Your task to perform on an android device: change alarm snooze length Image 0: 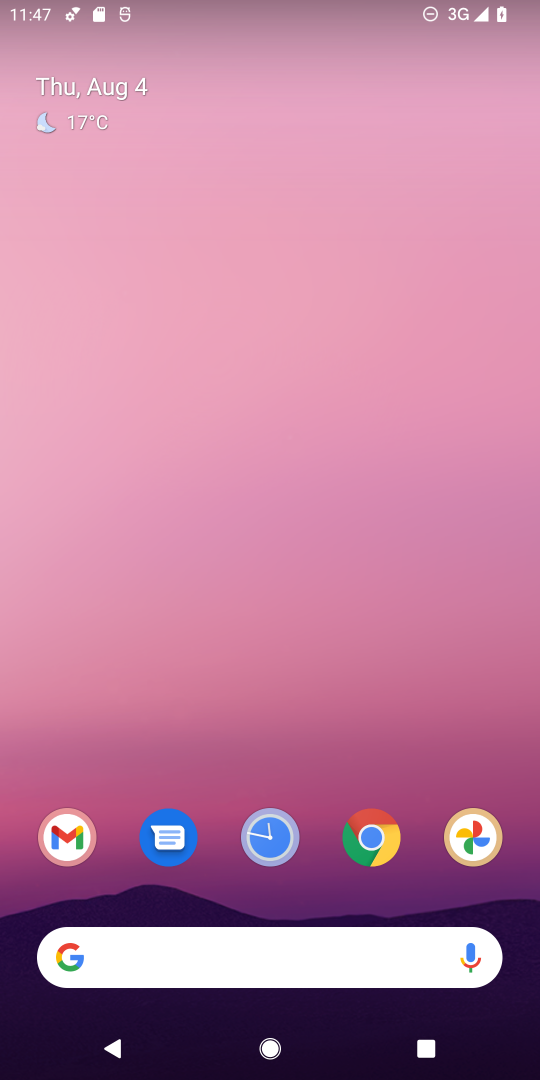
Step 0: drag from (394, 839) to (118, 41)
Your task to perform on an android device: change alarm snooze length Image 1: 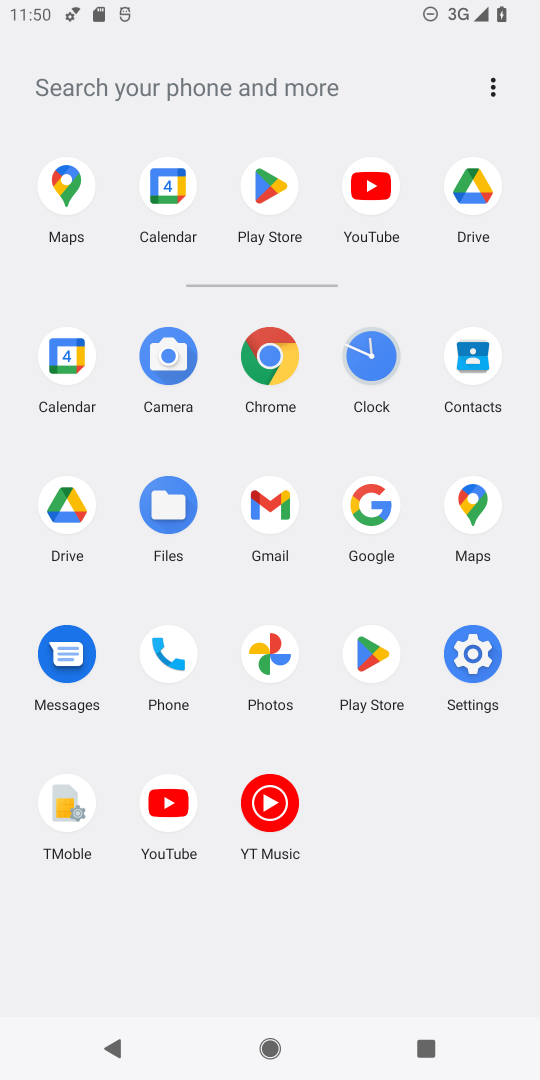
Step 1: click (366, 364)
Your task to perform on an android device: change alarm snooze length Image 2: 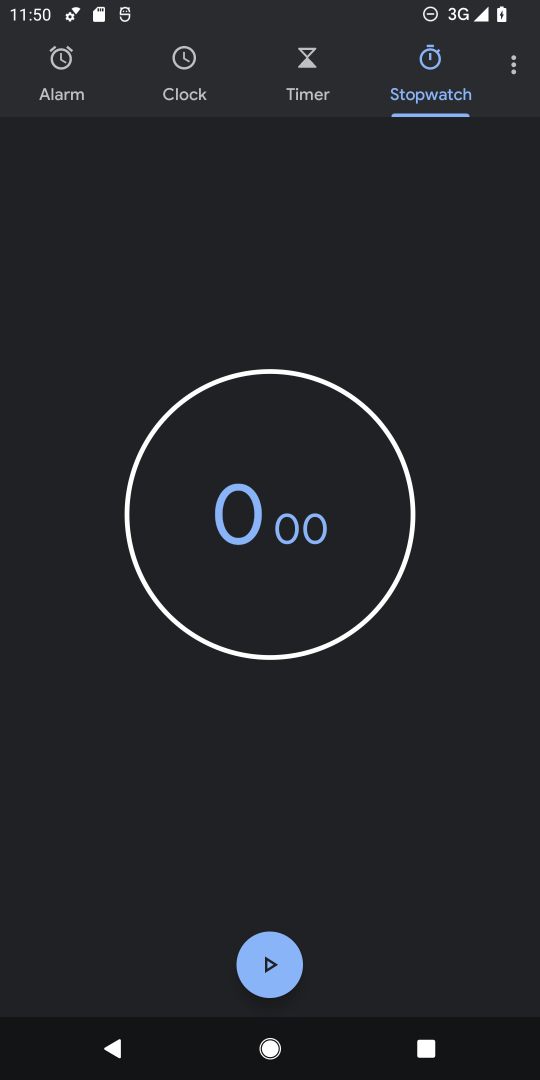
Step 2: click (514, 60)
Your task to perform on an android device: change alarm snooze length Image 3: 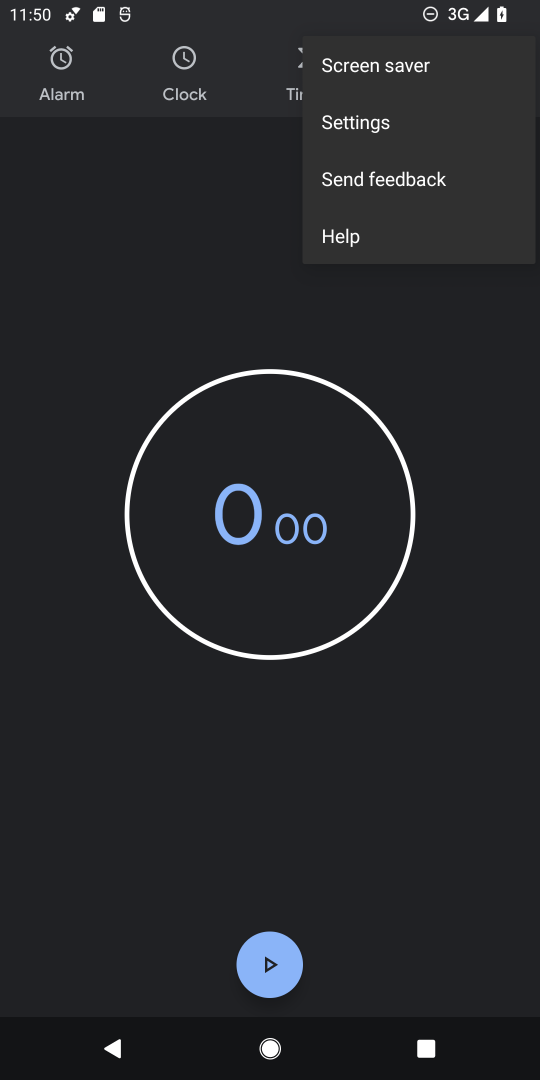
Step 3: click (389, 121)
Your task to perform on an android device: change alarm snooze length Image 4: 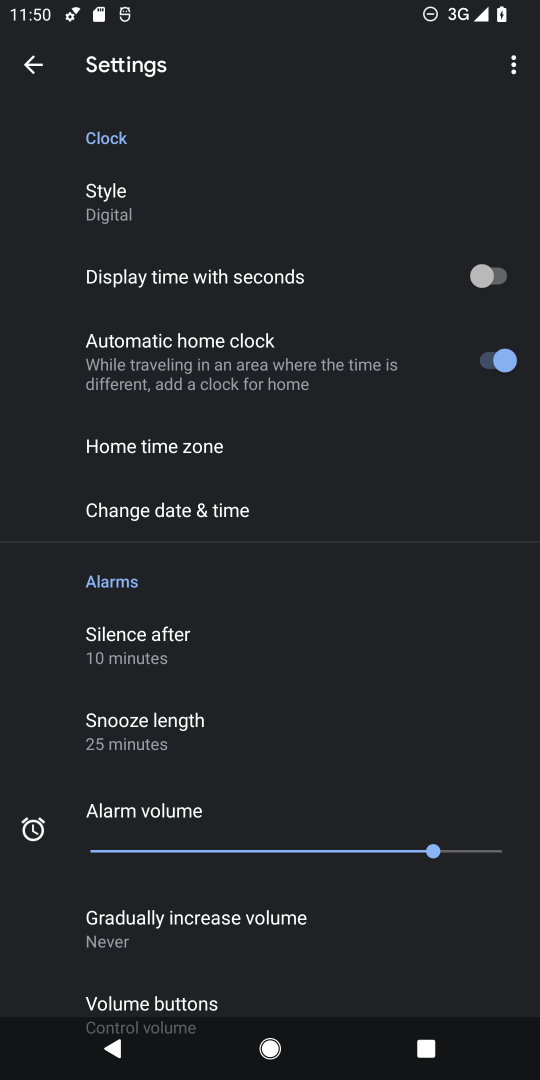
Step 4: click (187, 730)
Your task to perform on an android device: change alarm snooze length Image 5: 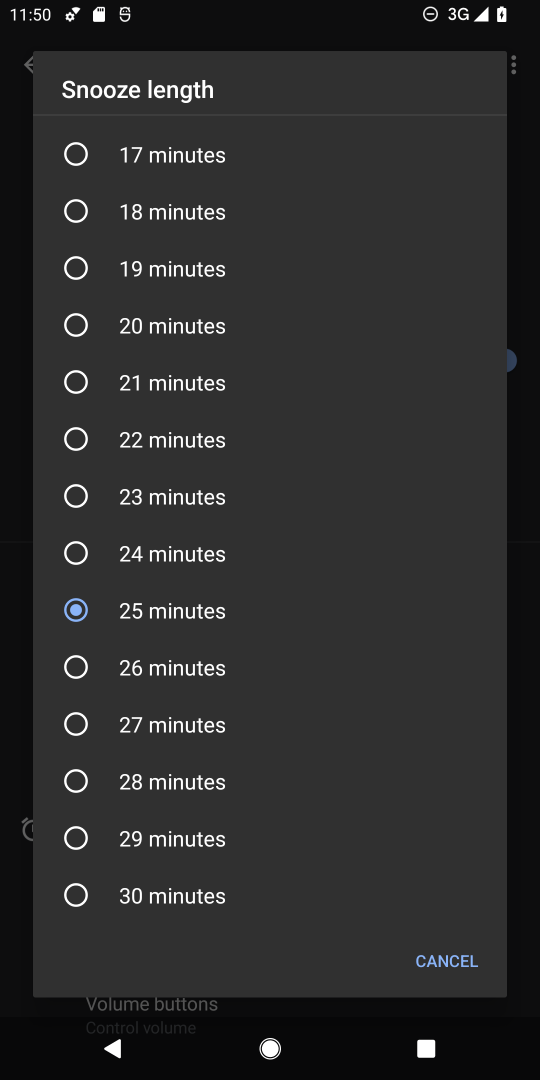
Step 5: click (85, 672)
Your task to perform on an android device: change alarm snooze length Image 6: 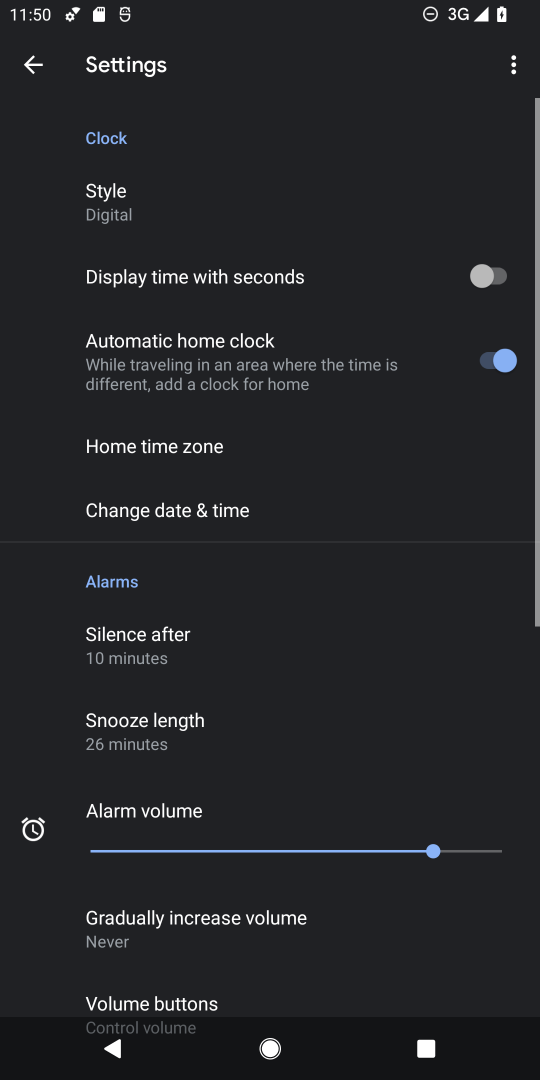
Step 6: task complete